Your task to perform on an android device: Go to internet settings Image 0: 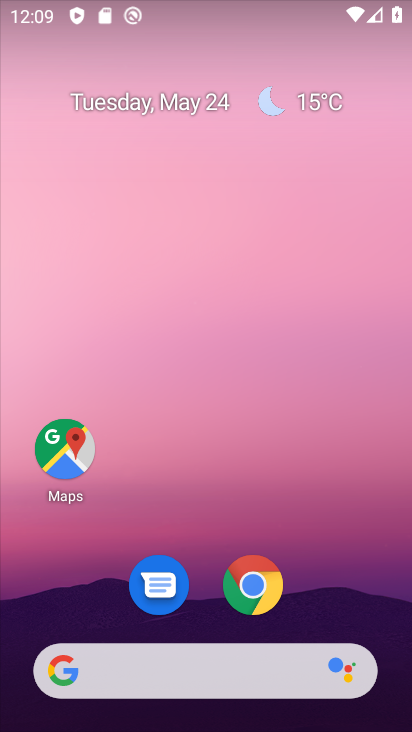
Step 0: drag from (273, 523) to (280, 29)
Your task to perform on an android device: Go to internet settings Image 1: 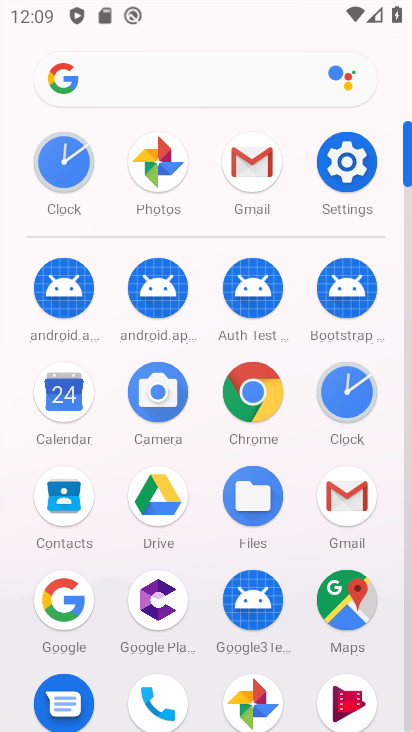
Step 1: click (335, 154)
Your task to perform on an android device: Go to internet settings Image 2: 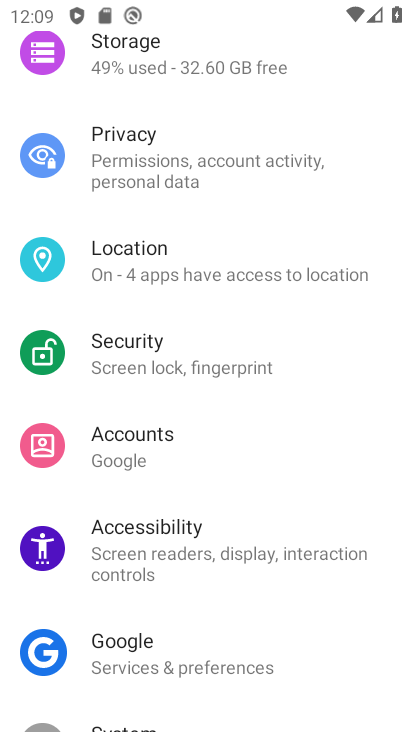
Step 2: drag from (304, 268) to (266, 676)
Your task to perform on an android device: Go to internet settings Image 3: 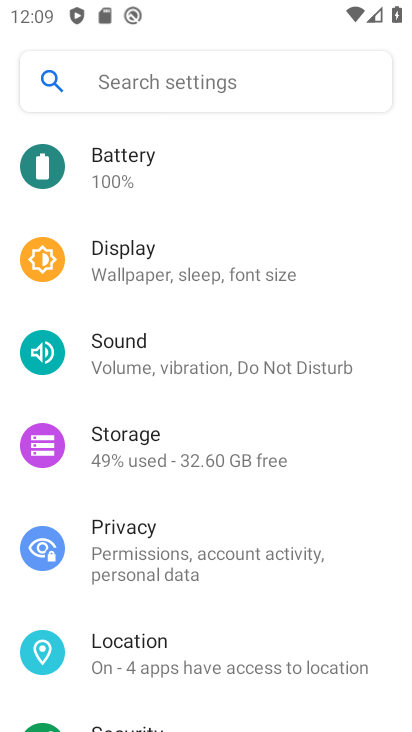
Step 3: drag from (217, 222) to (224, 625)
Your task to perform on an android device: Go to internet settings Image 4: 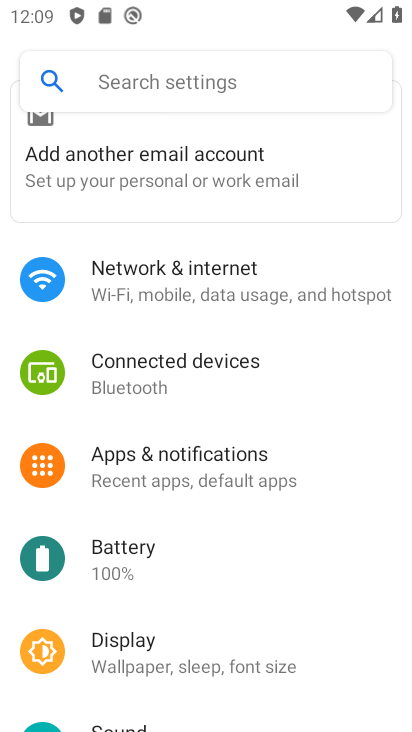
Step 4: click (236, 286)
Your task to perform on an android device: Go to internet settings Image 5: 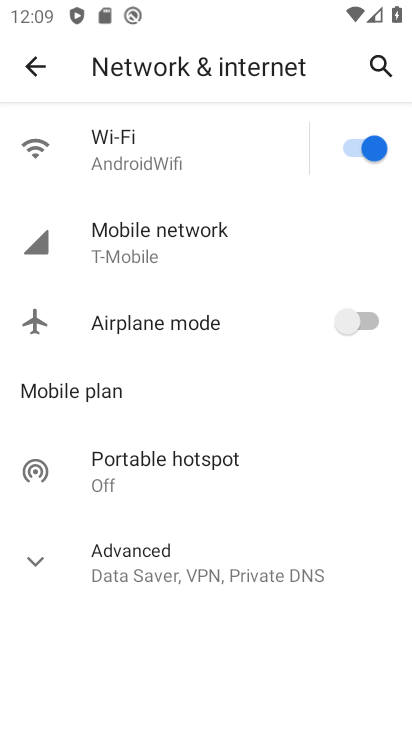
Step 5: task complete